Your task to perform on an android device: open a new tab in the chrome app Image 0: 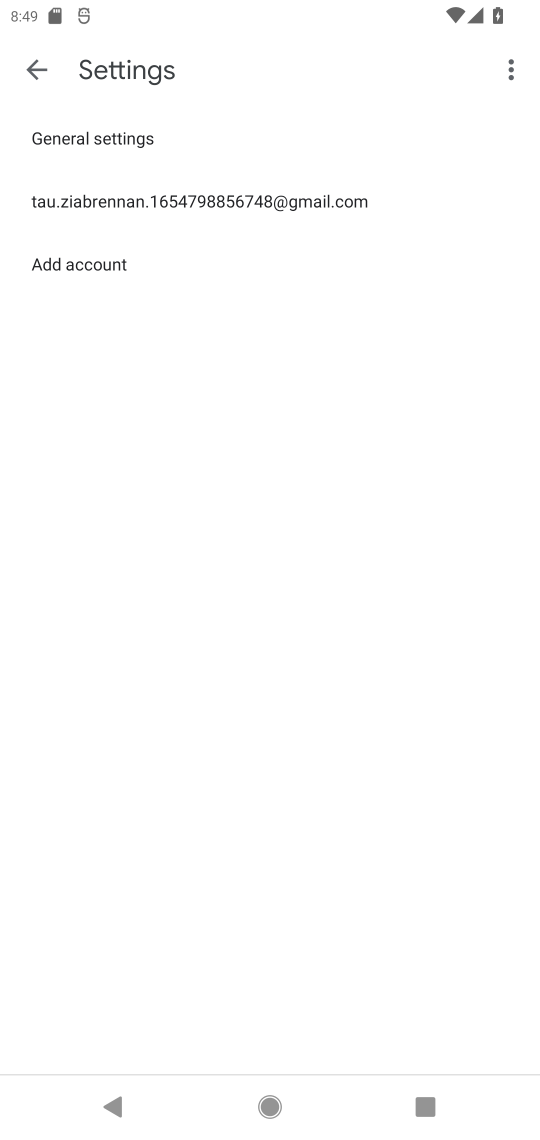
Step 0: press home button
Your task to perform on an android device: open a new tab in the chrome app Image 1: 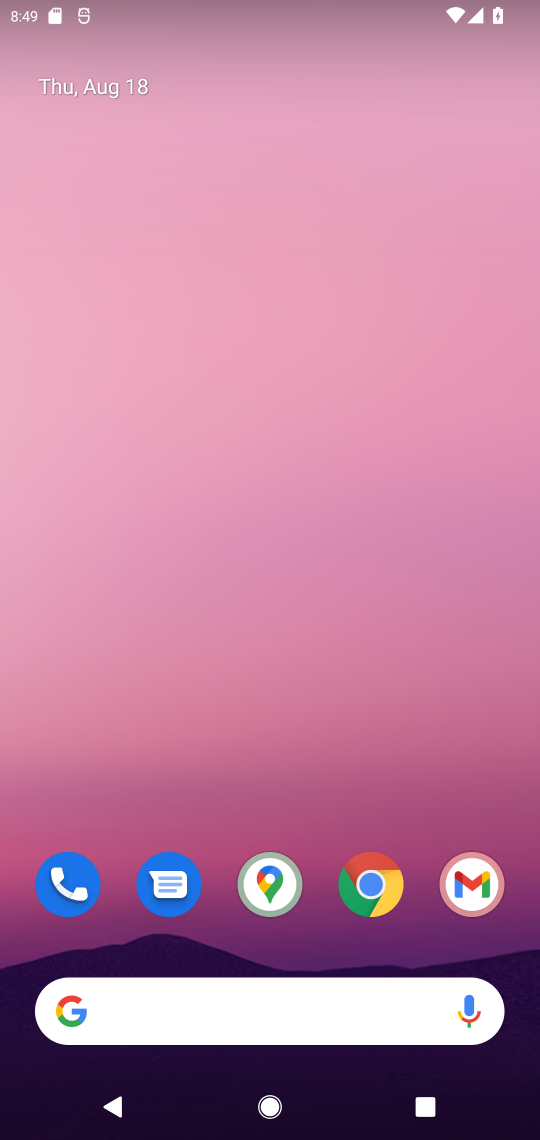
Step 1: click (364, 887)
Your task to perform on an android device: open a new tab in the chrome app Image 2: 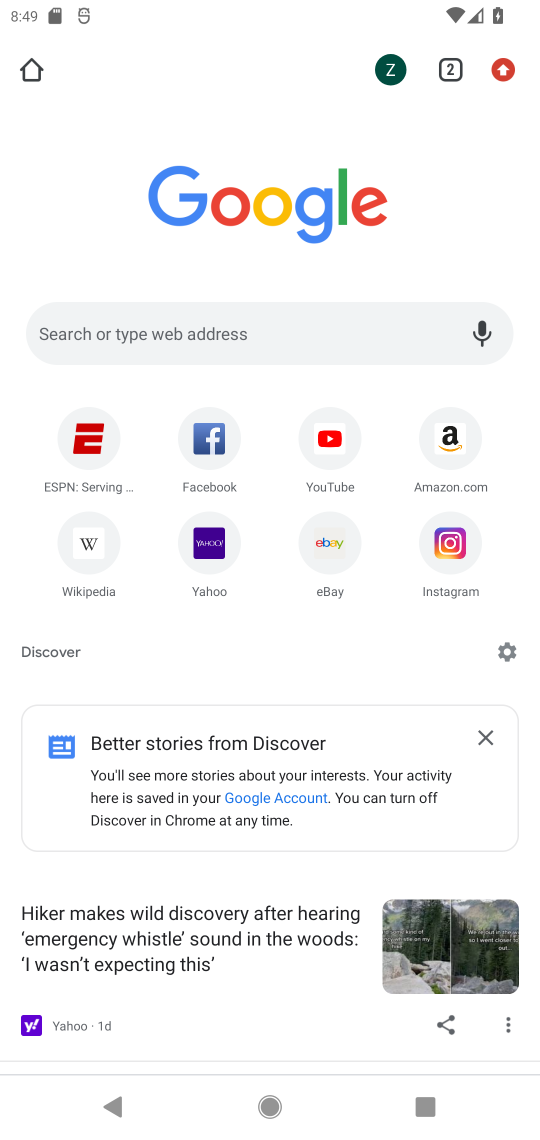
Step 2: click (509, 68)
Your task to perform on an android device: open a new tab in the chrome app Image 3: 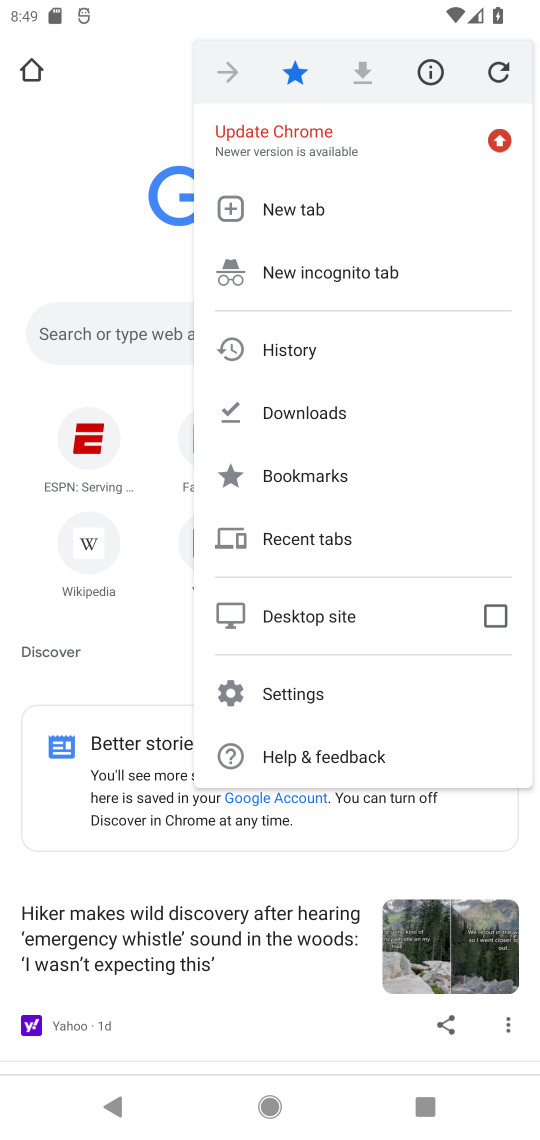
Step 3: click (272, 208)
Your task to perform on an android device: open a new tab in the chrome app Image 4: 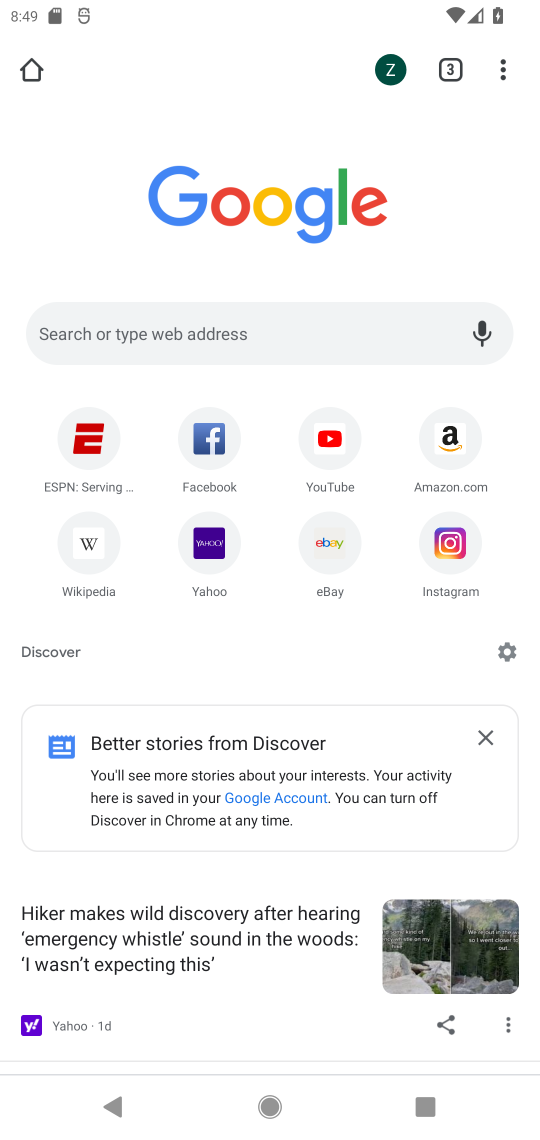
Step 4: task complete